Your task to perform on an android device: What's on my calendar today? Image 0: 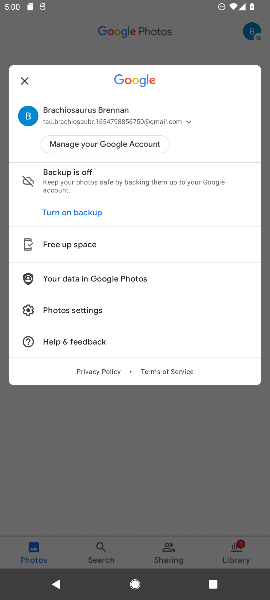
Step 0: press home button
Your task to perform on an android device: What's on my calendar today? Image 1: 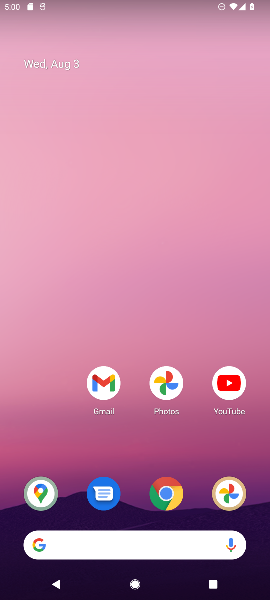
Step 1: drag from (62, 442) to (64, 177)
Your task to perform on an android device: What's on my calendar today? Image 2: 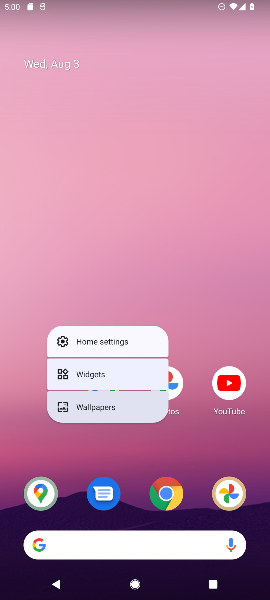
Step 2: click (27, 391)
Your task to perform on an android device: What's on my calendar today? Image 3: 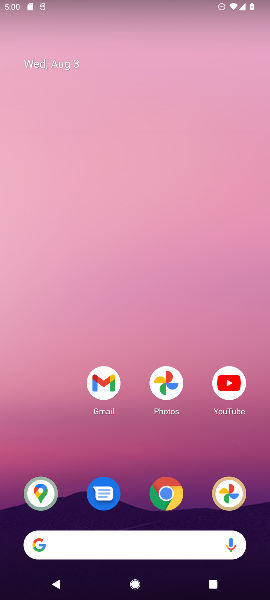
Step 3: drag from (60, 446) to (46, 115)
Your task to perform on an android device: What's on my calendar today? Image 4: 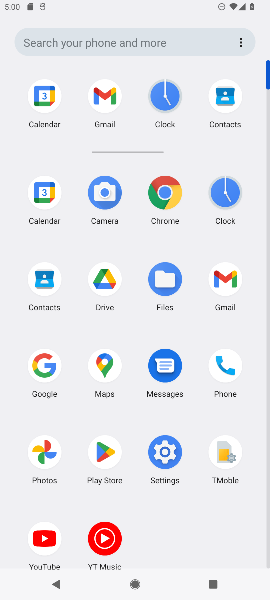
Step 4: click (42, 199)
Your task to perform on an android device: What's on my calendar today? Image 5: 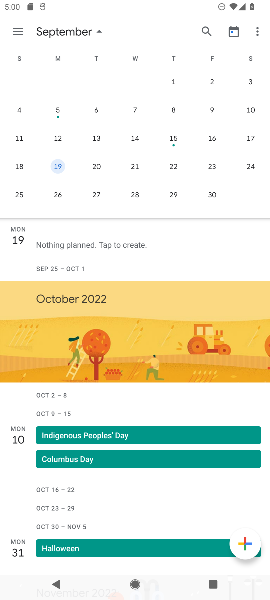
Step 5: drag from (134, 311) to (143, 131)
Your task to perform on an android device: What's on my calendar today? Image 6: 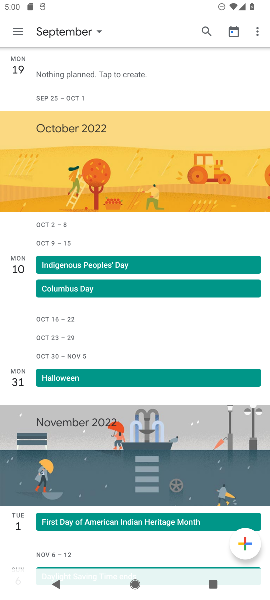
Step 6: drag from (133, 67) to (138, 241)
Your task to perform on an android device: What's on my calendar today? Image 7: 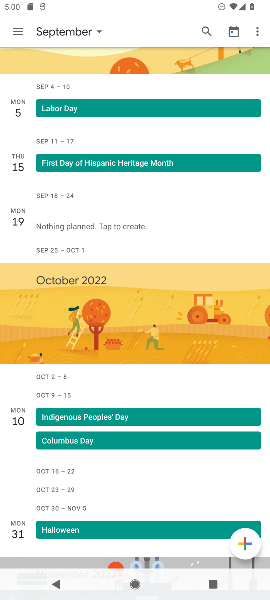
Step 7: drag from (127, 66) to (127, 335)
Your task to perform on an android device: What's on my calendar today? Image 8: 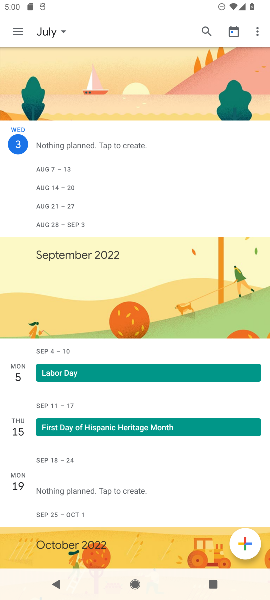
Step 8: drag from (116, 198) to (127, 109)
Your task to perform on an android device: What's on my calendar today? Image 9: 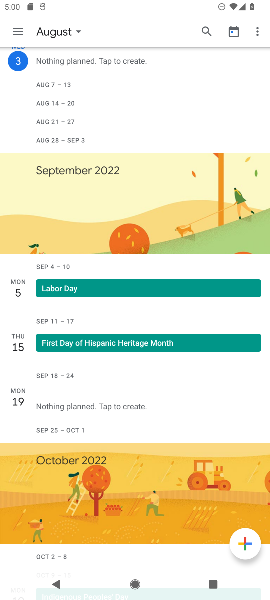
Step 9: click (74, 26)
Your task to perform on an android device: What's on my calendar today? Image 10: 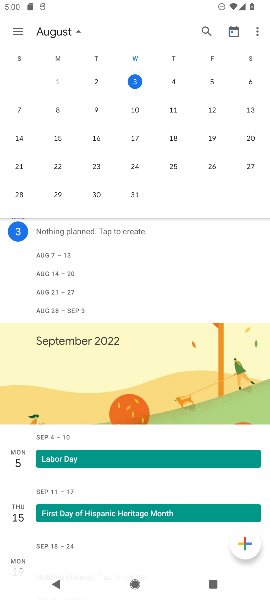
Step 10: click (135, 78)
Your task to perform on an android device: What's on my calendar today? Image 11: 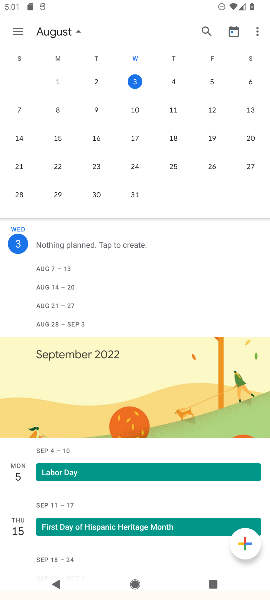
Step 11: task complete